Your task to perform on an android device: open the mobile data screen to see how much data has been used Image 0: 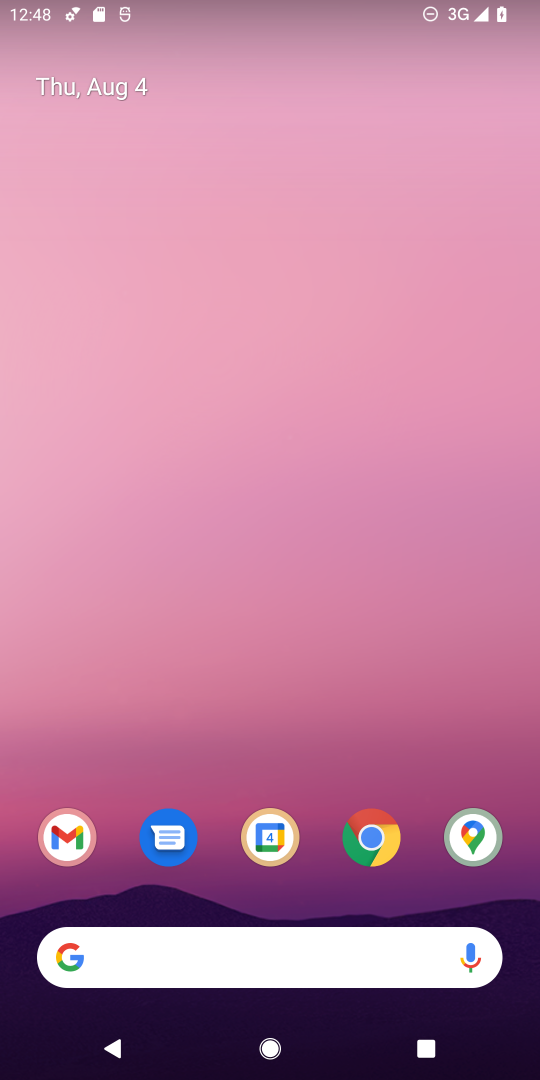
Step 0: drag from (428, 885) to (173, 64)
Your task to perform on an android device: open the mobile data screen to see how much data has been used Image 1: 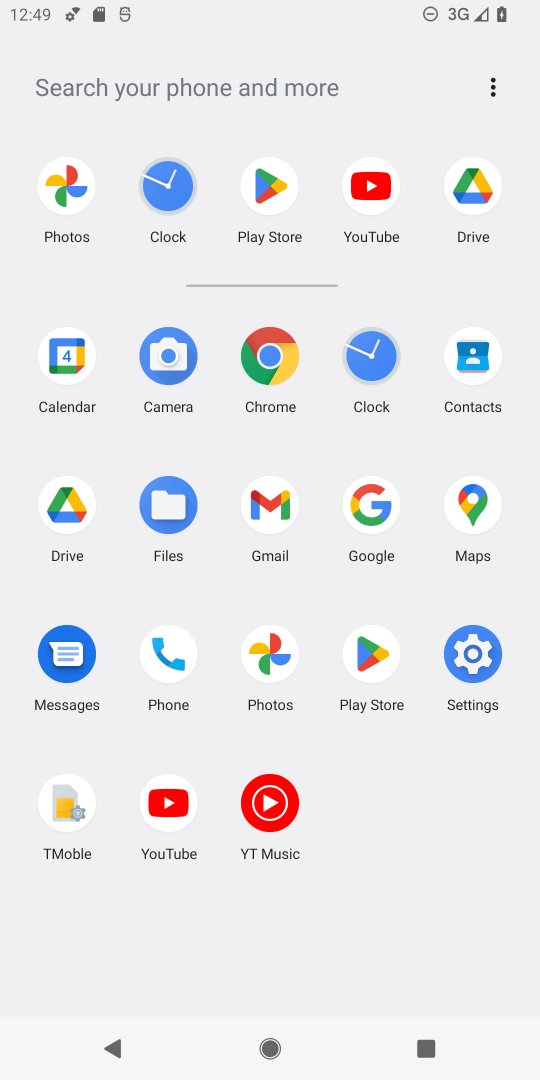
Step 1: click (276, 523)
Your task to perform on an android device: open the mobile data screen to see how much data has been used Image 2: 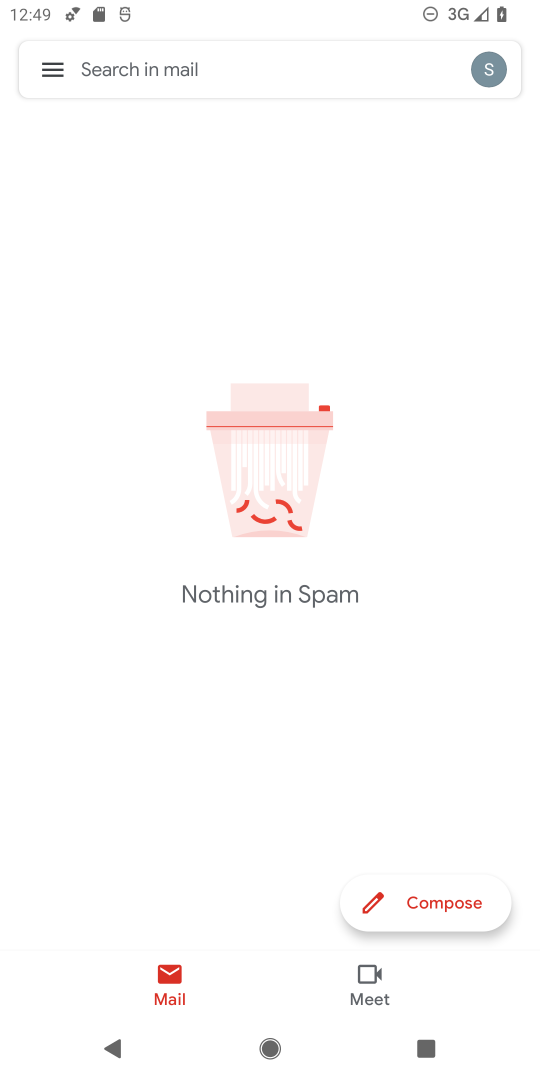
Step 2: task complete